Your task to perform on an android device: Search for top rated sushi restaurant Image 0: 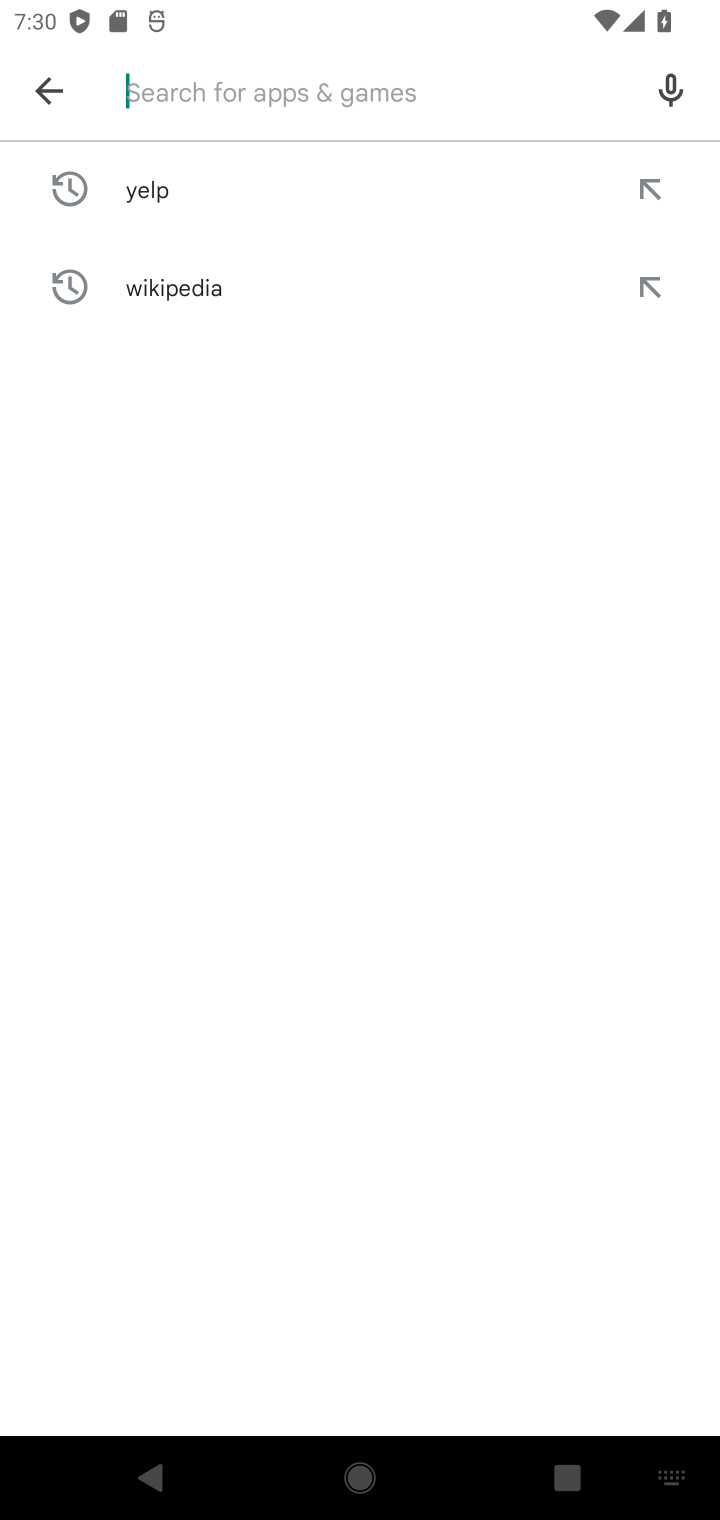
Step 0: press home button
Your task to perform on an android device: Search for top rated sushi restaurant Image 1: 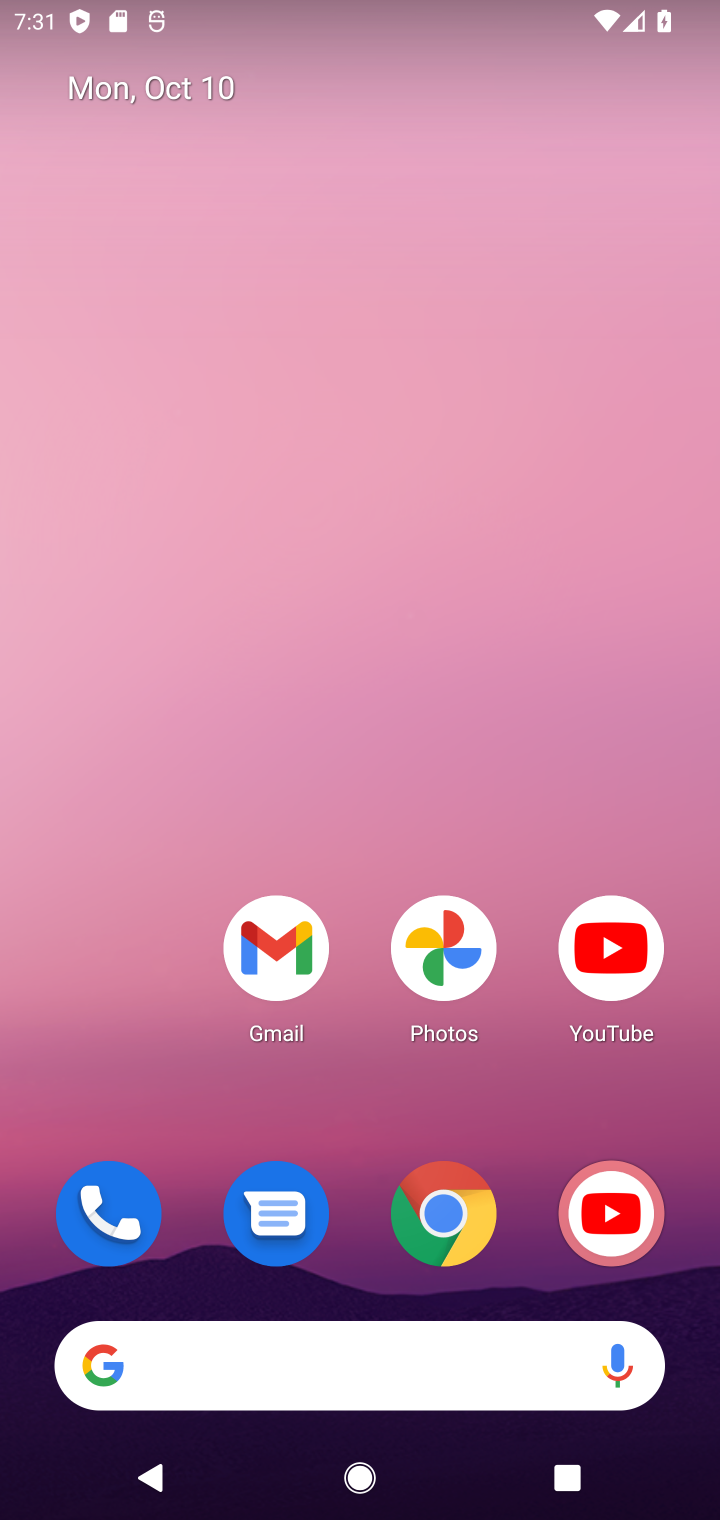
Step 1: drag from (127, 1072) to (292, 204)
Your task to perform on an android device: Search for top rated sushi restaurant Image 2: 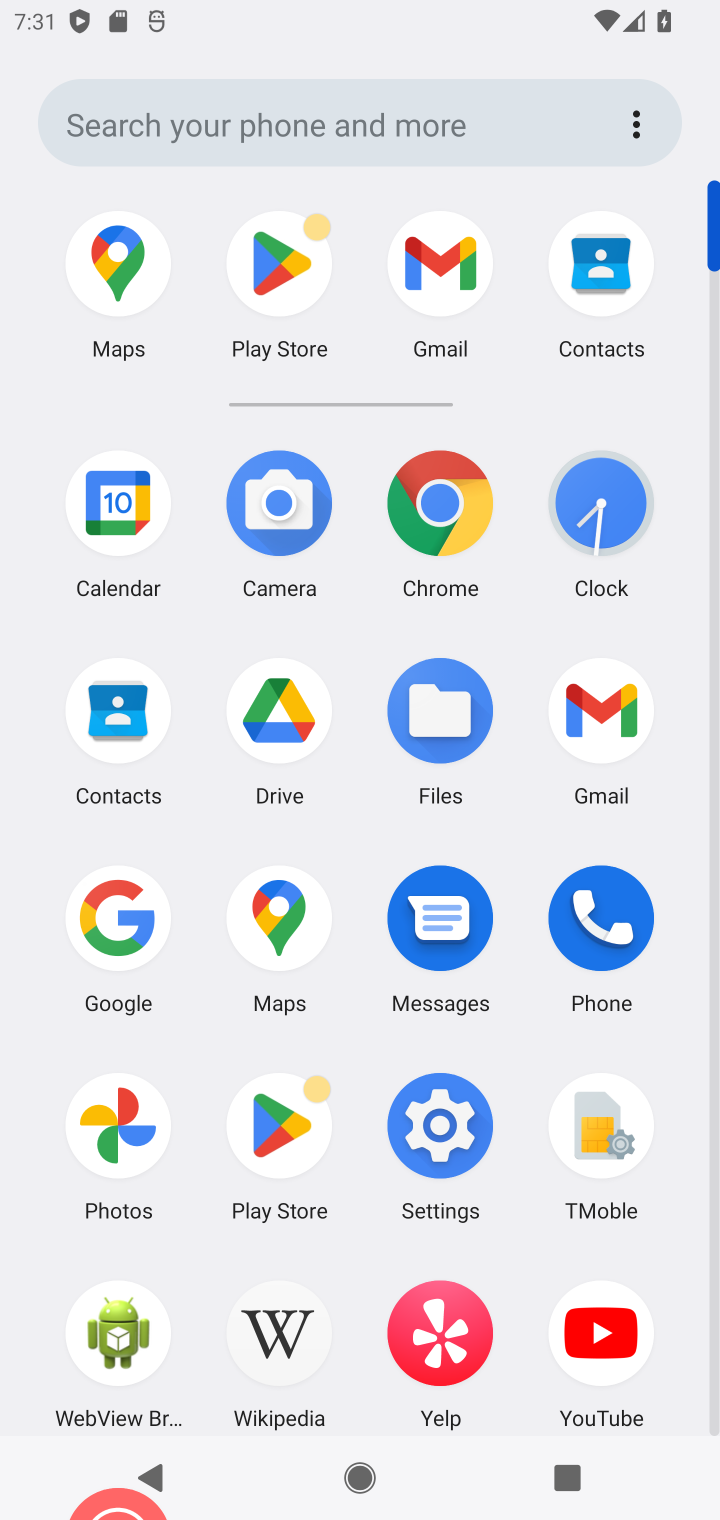
Step 2: click (291, 916)
Your task to perform on an android device: Search for top rated sushi restaurant Image 3: 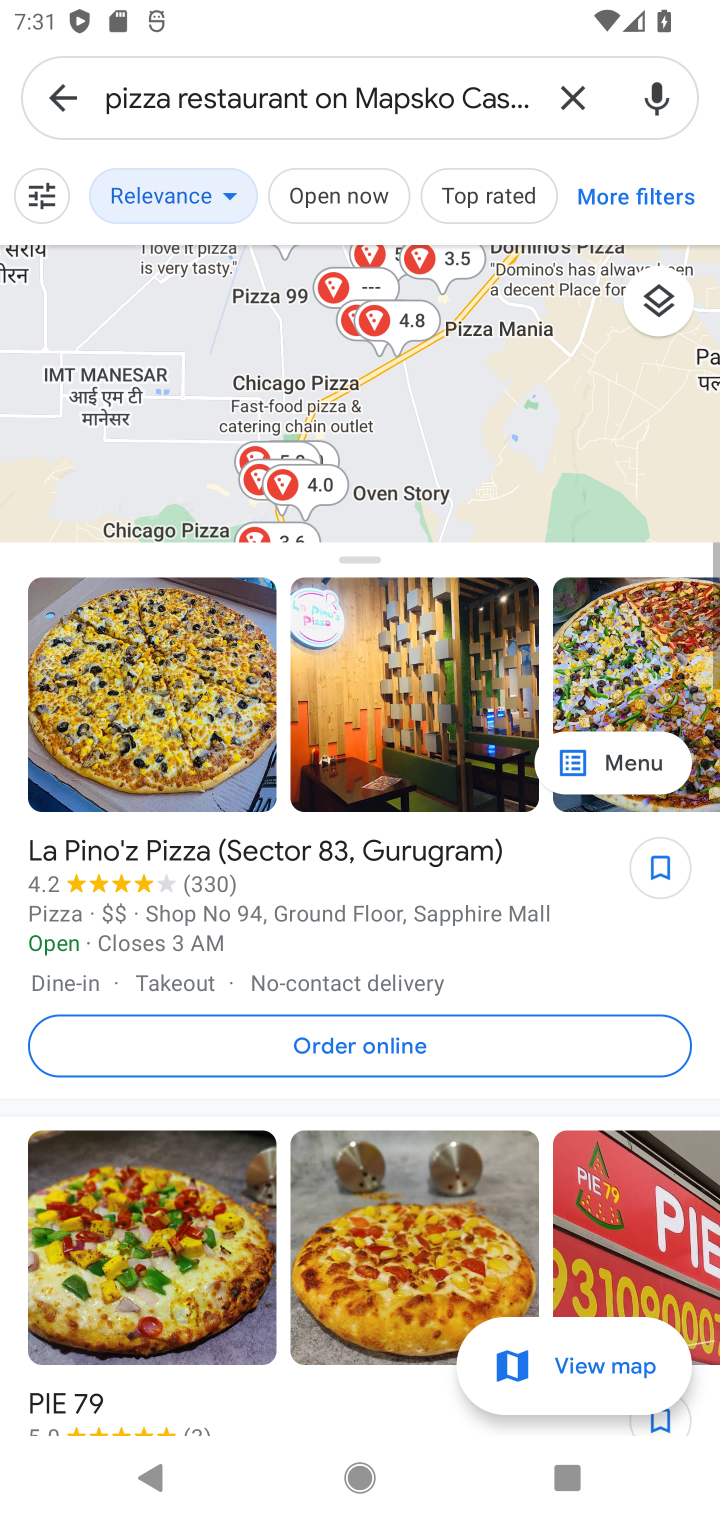
Step 3: click (592, 113)
Your task to perform on an android device: Search for top rated sushi restaurant Image 4: 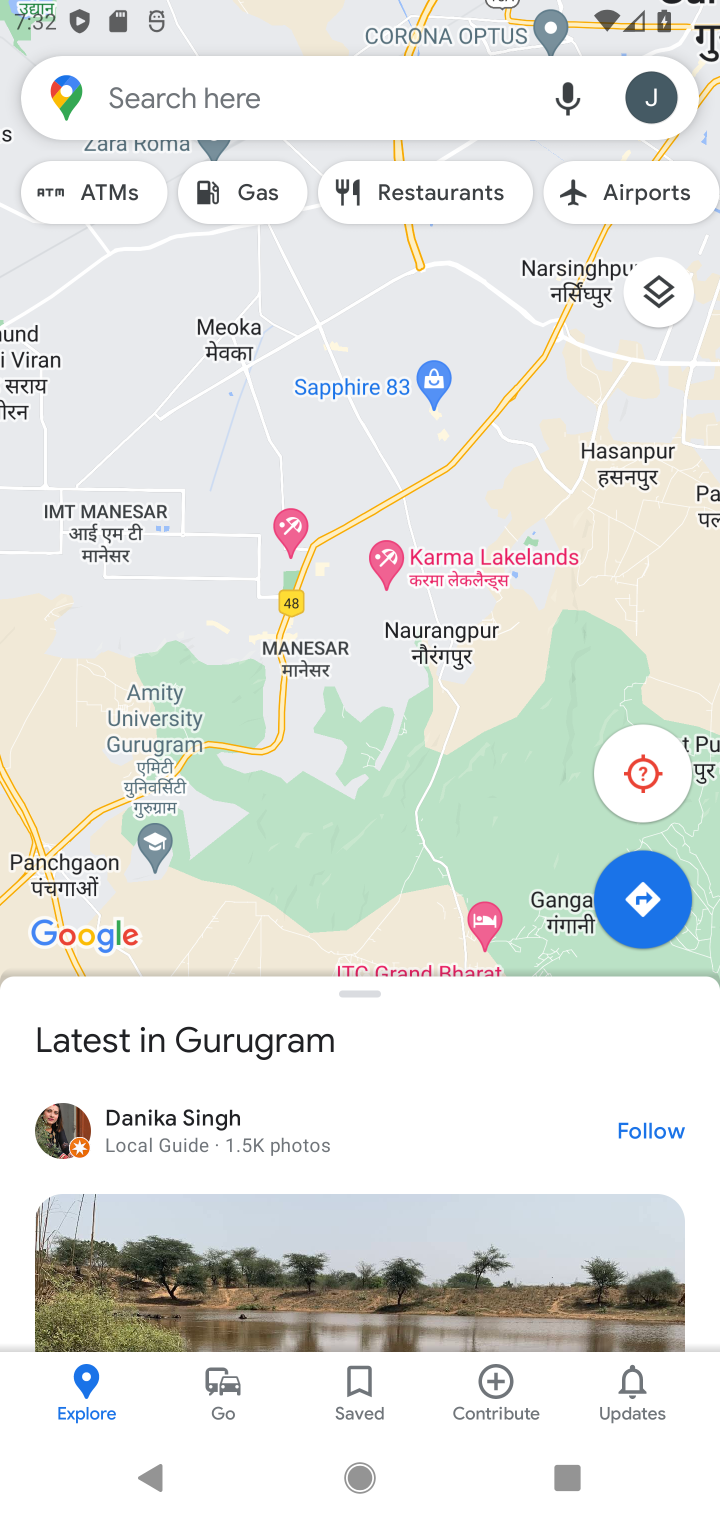
Step 4: click (342, 98)
Your task to perform on an android device: Search for top rated sushi restaurant Image 5: 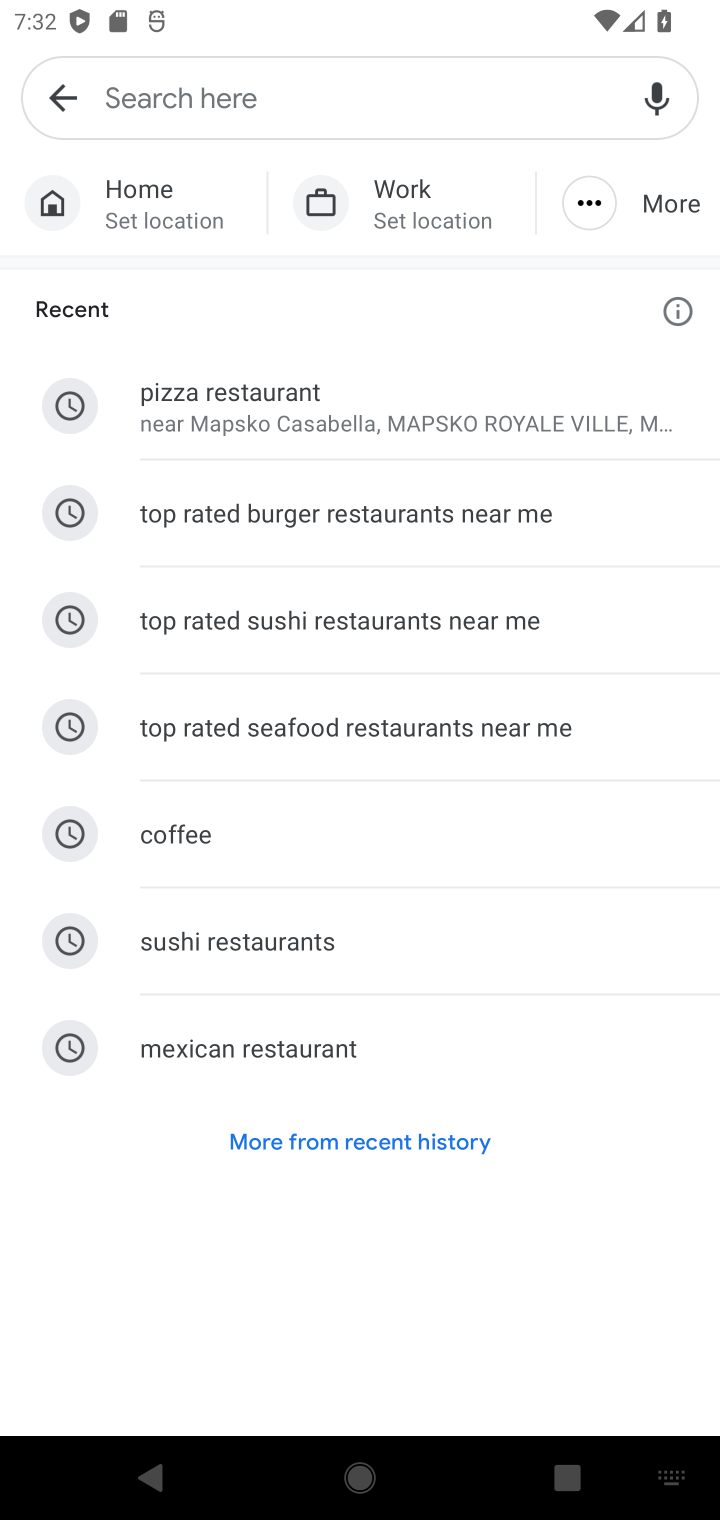
Step 5: click (339, 614)
Your task to perform on an android device: Search for top rated sushi restaurant Image 6: 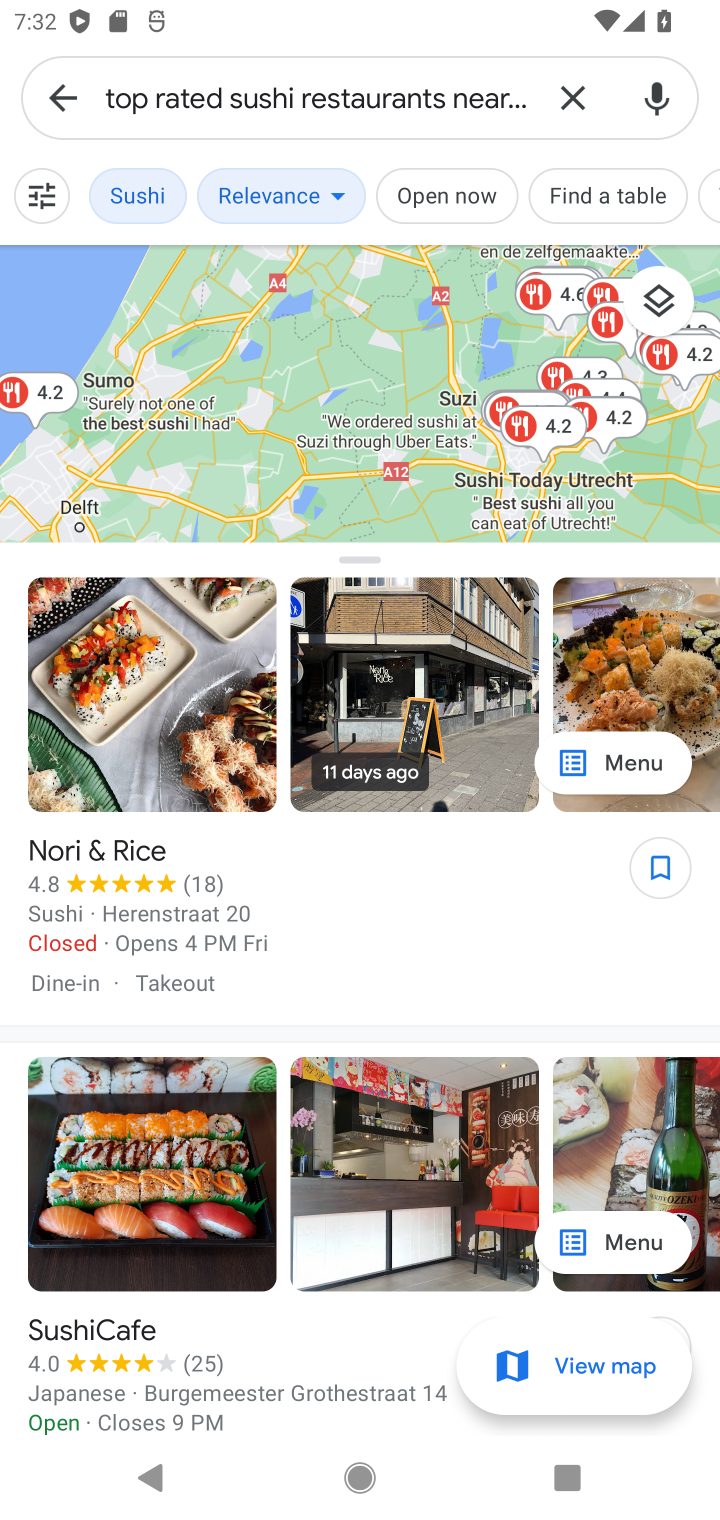
Step 6: task complete